Your task to perform on an android device: Turn off the flashlight Image 0: 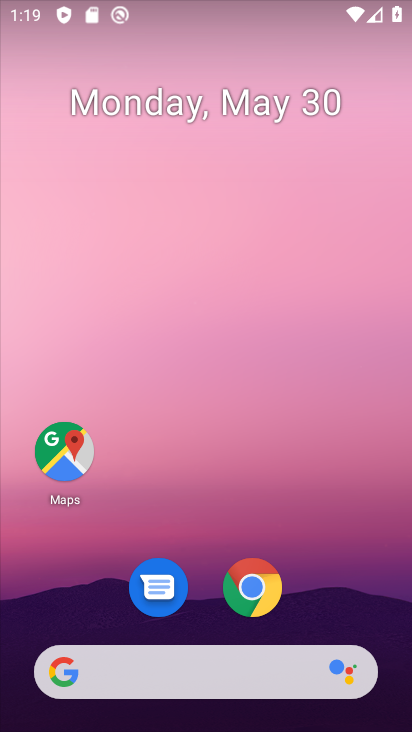
Step 0: drag from (198, 12) to (232, 698)
Your task to perform on an android device: Turn off the flashlight Image 1: 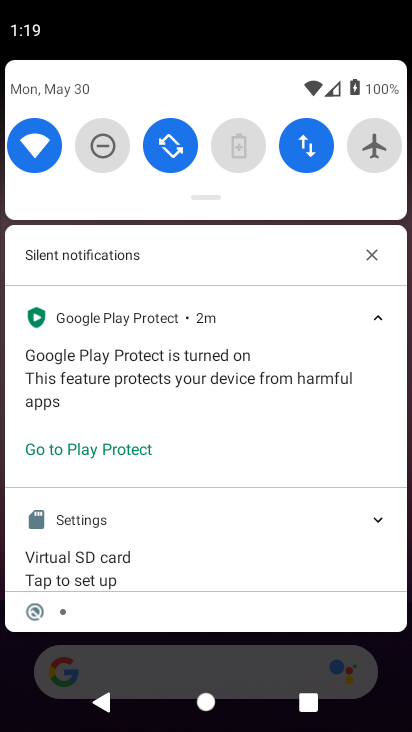
Step 1: drag from (199, 197) to (218, 723)
Your task to perform on an android device: Turn off the flashlight Image 2: 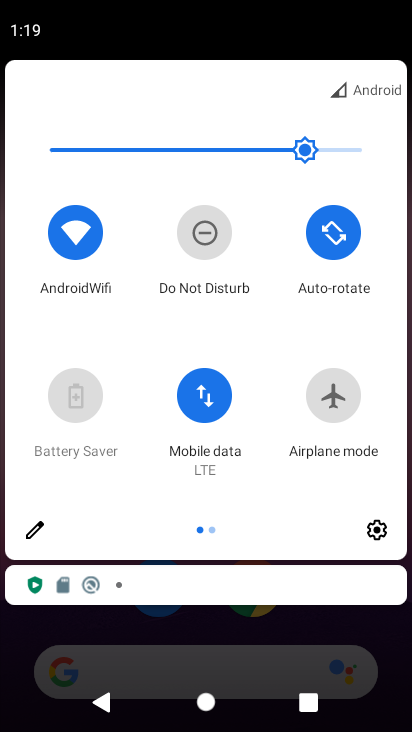
Step 2: click (28, 533)
Your task to perform on an android device: Turn off the flashlight Image 3: 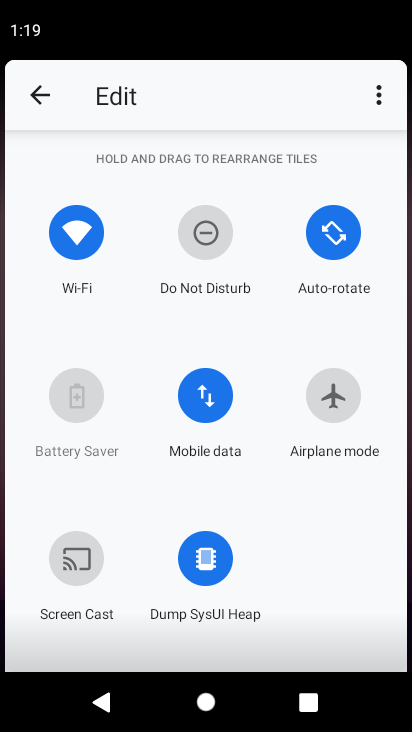
Step 3: task complete